Your task to perform on an android device: What's on my calendar tomorrow? Image 0: 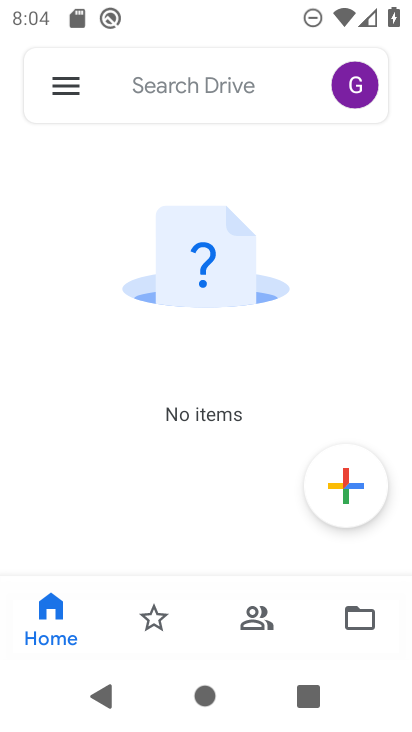
Step 0: press home button
Your task to perform on an android device: What's on my calendar tomorrow? Image 1: 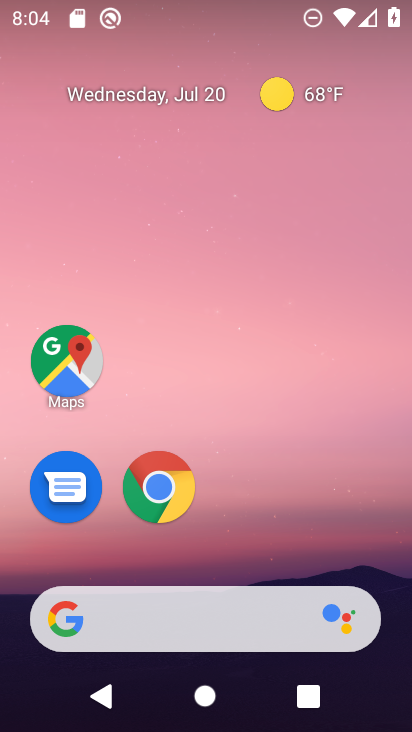
Step 1: drag from (370, 544) to (377, 121)
Your task to perform on an android device: What's on my calendar tomorrow? Image 2: 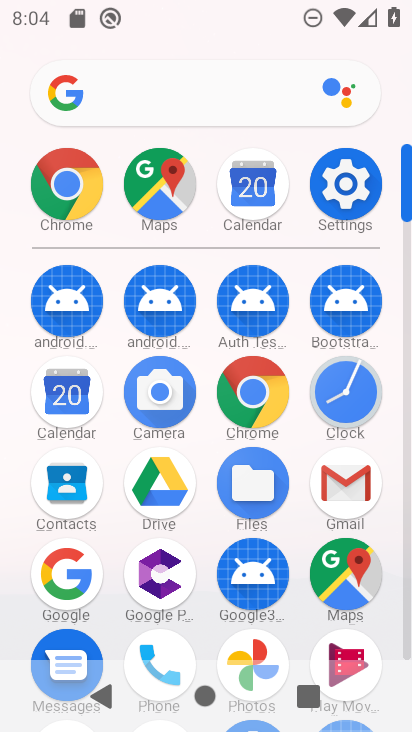
Step 2: click (66, 402)
Your task to perform on an android device: What's on my calendar tomorrow? Image 3: 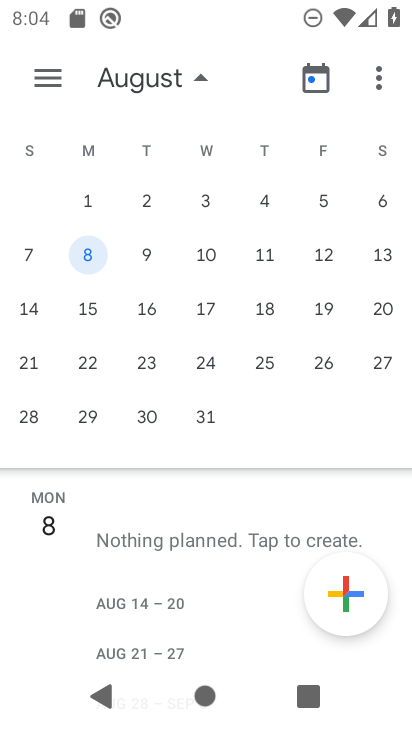
Step 3: drag from (221, 572) to (208, 333)
Your task to perform on an android device: What's on my calendar tomorrow? Image 4: 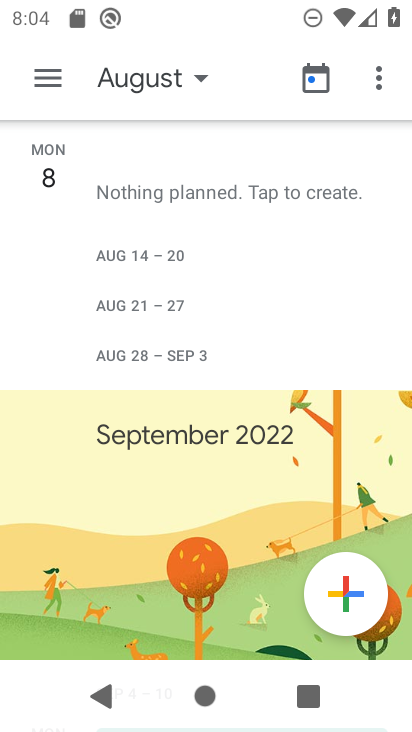
Step 4: drag from (226, 227) to (228, 452)
Your task to perform on an android device: What's on my calendar tomorrow? Image 5: 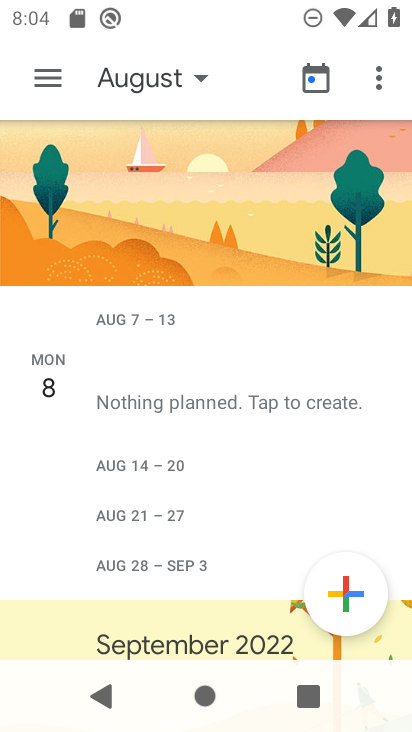
Step 5: drag from (239, 215) to (253, 415)
Your task to perform on an android device: What's on my calendar tomorrow? Image 6: 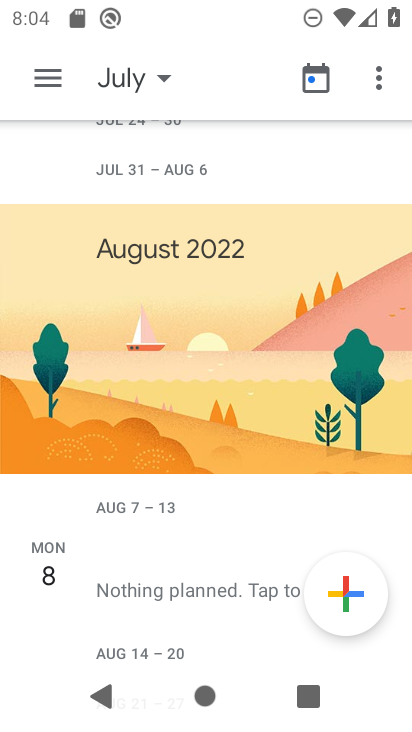
Step 6: click (159, 80)
Your task to perform on an android device: What's on my calendar tomorrow? Image 7: 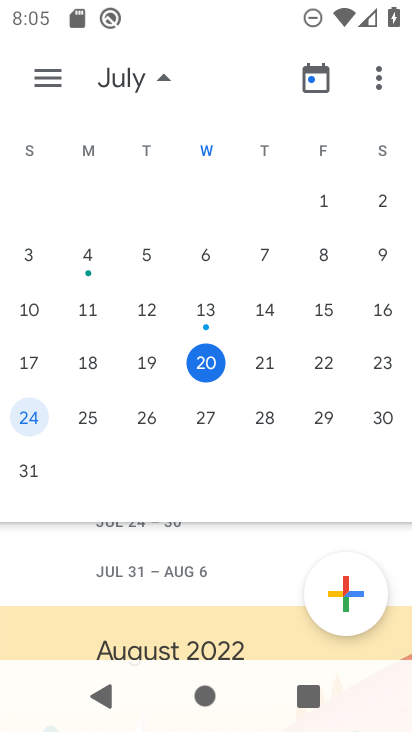
Step 7: click (329, 361)
Your task to perform on an android device: What's on my calendar tomorrow? Image 8: 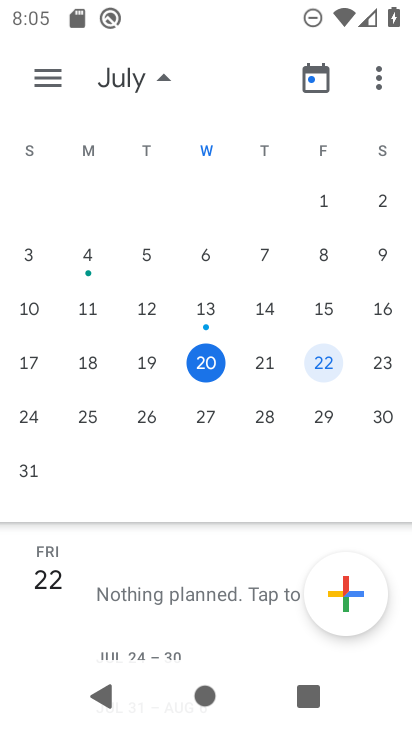
Step 8: task complete